Your task to perform on an android device: allow notifications from all sites in the chrome app Image 0: 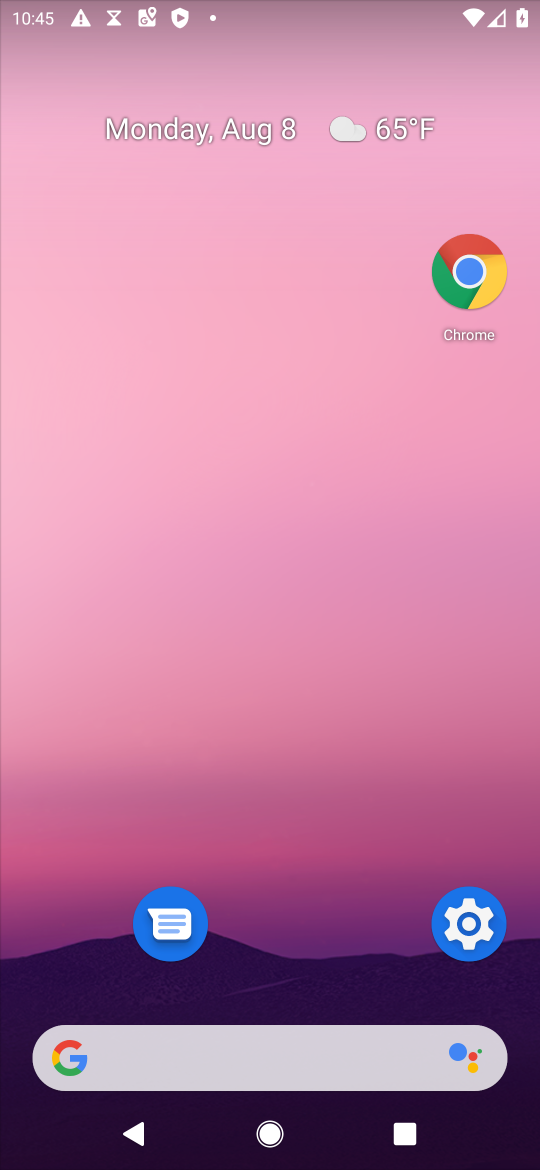
Step 0: press home button
Your task to perform on an android device: allow notifications from all sites in the chrome app Image 1: 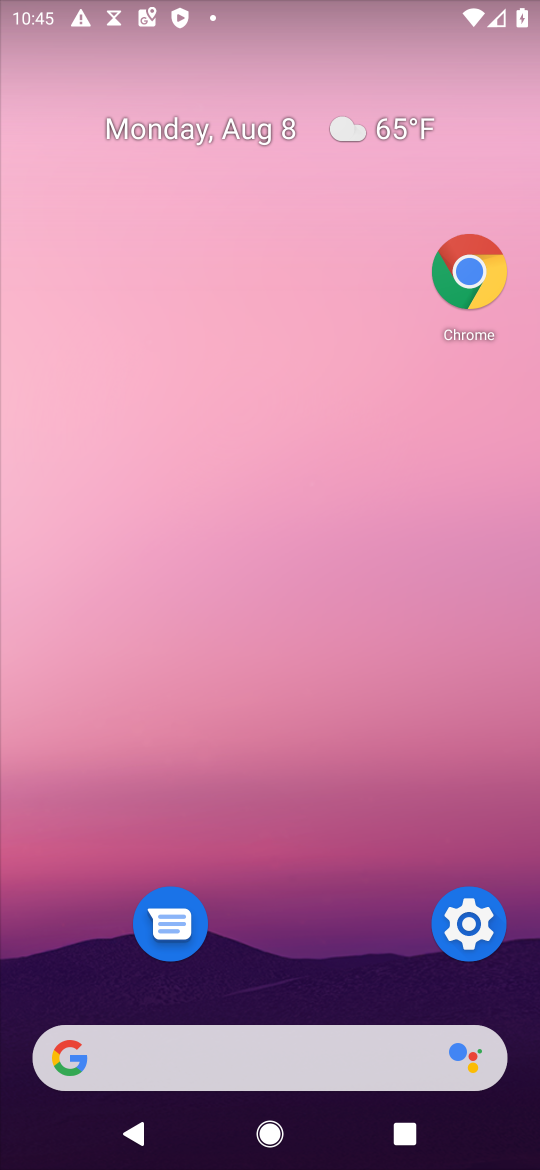
Step 1: drag from (236, 963) to (244, 760)
Your task to perform on an android device: allow notifications from all sites in the chrome app Image 2: 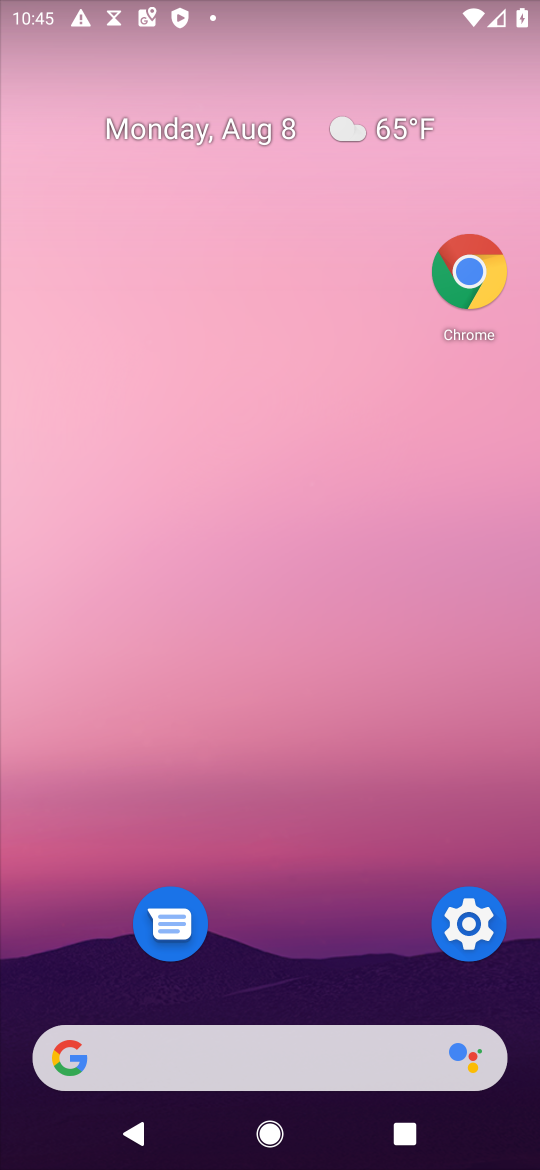
Step 2: click (478, 260)
Your task to perform on an android device: allow notifications from all sites in the chrome app Image 3: 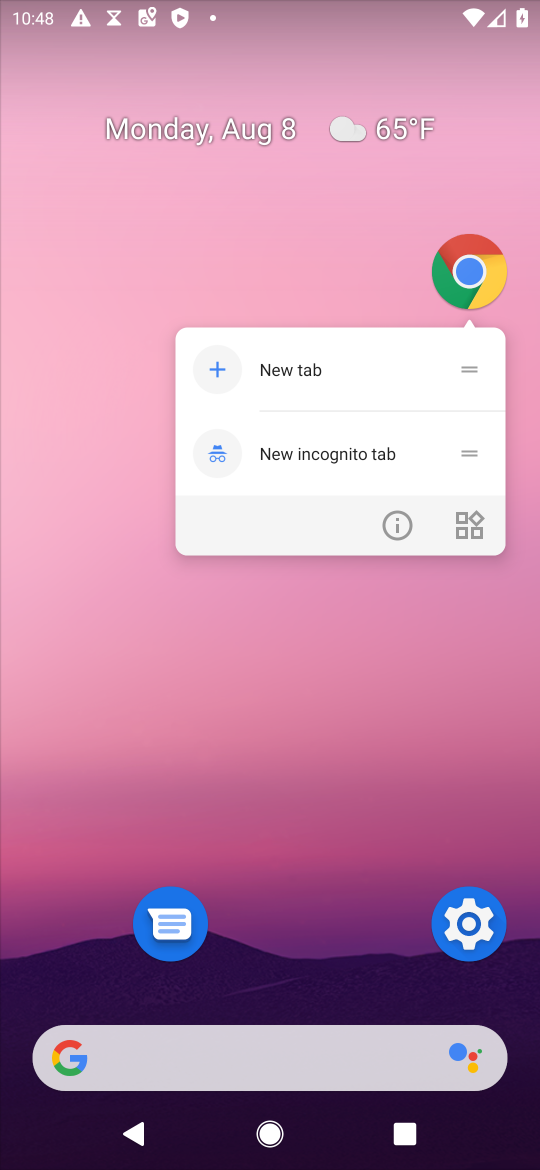
Step 3: click (304, 779)
Your task to perform on an android device: allow notifications from all sites in the chrome app Image 4: 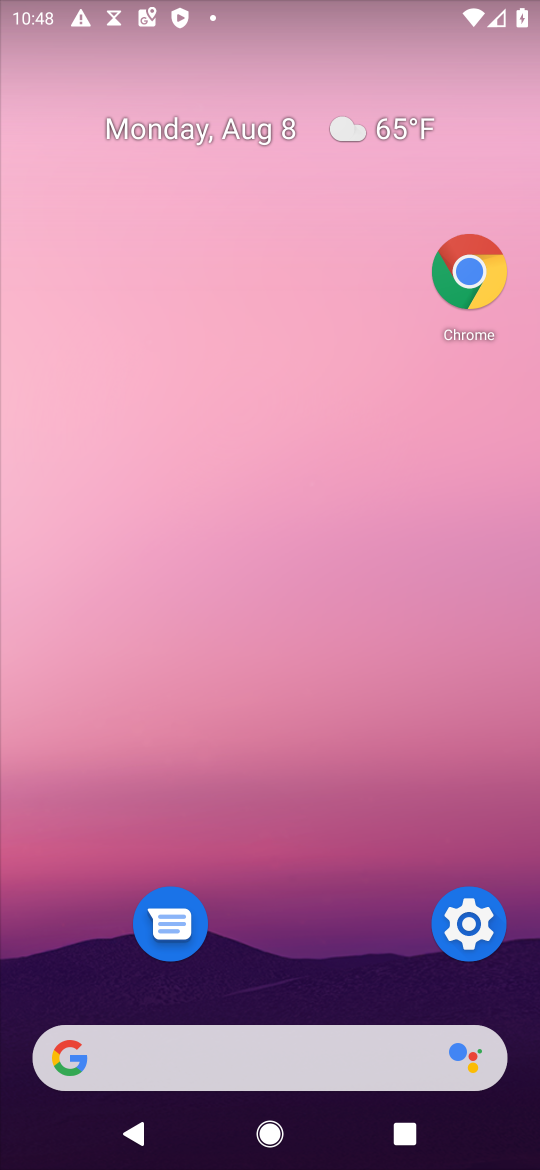
Step 4: click (482, 284)
Your task to perform on an android device: allow notifications from all sites in the chrome app Image 5: 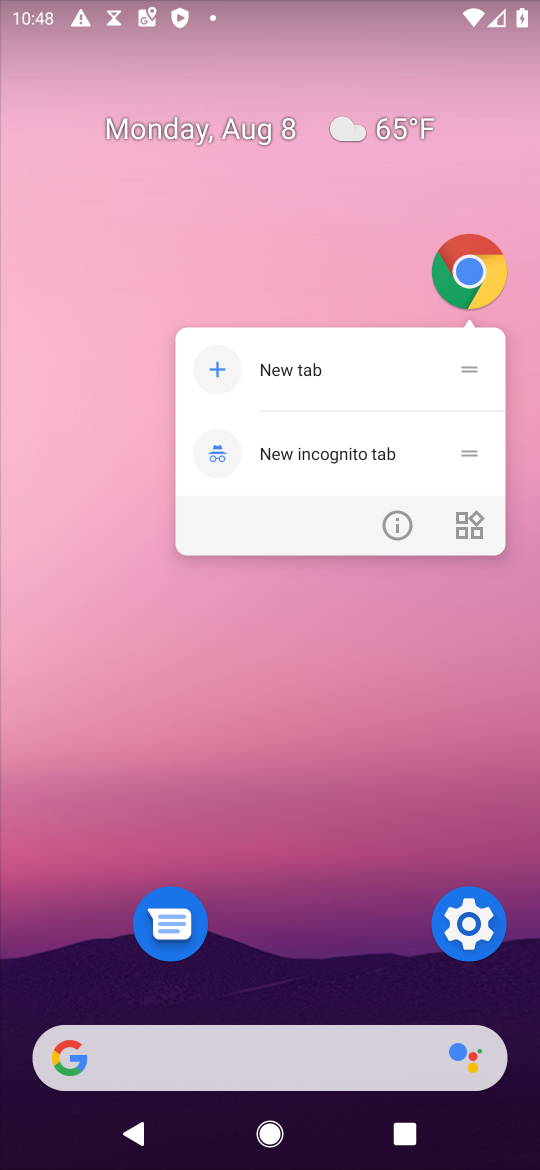
Step 5: click (383, 533)
Your task to perform on an android device: allow notifications from all sites in the chrome app Image 6: 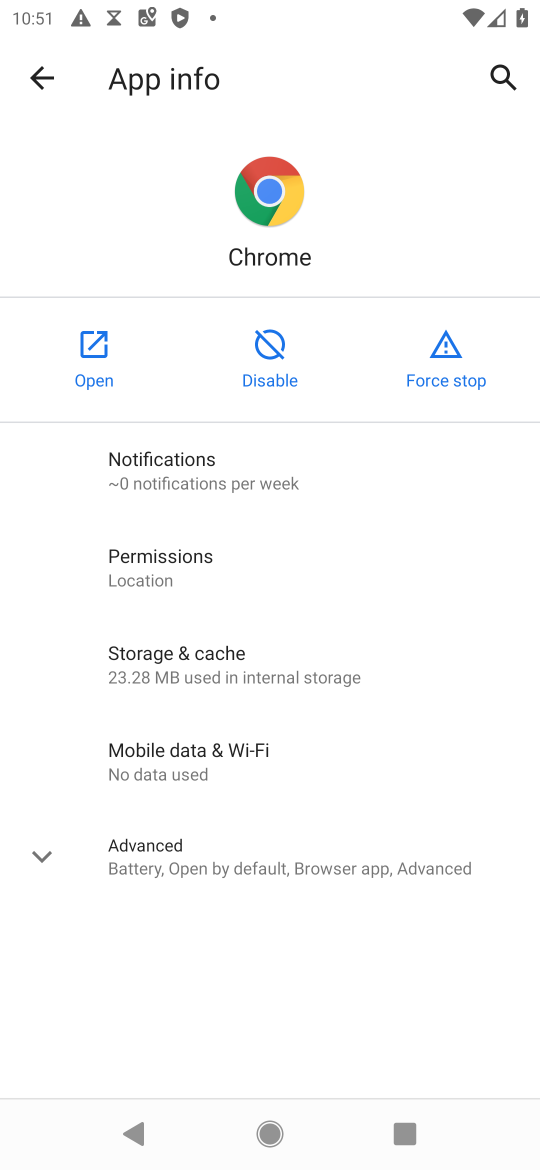
Step 6: click (156, 567)
Your task to perform on an android device: allow notifications from all sites in the chrome app Image 7: 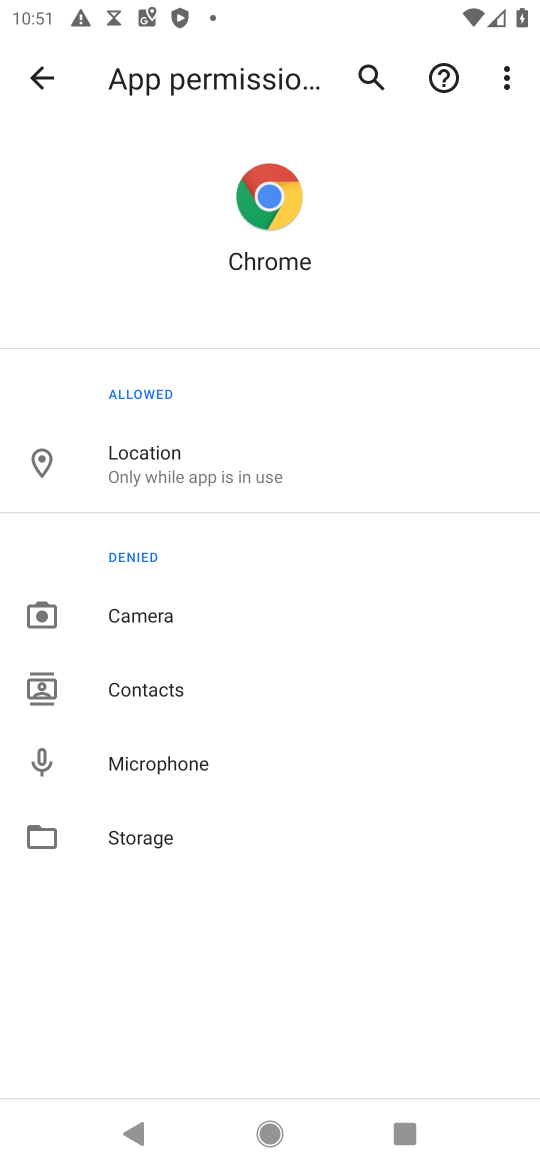
Step 7: click (160, 621)
Your task to perform on an android device: allow notifications from all sites in the chrome app Image 8: 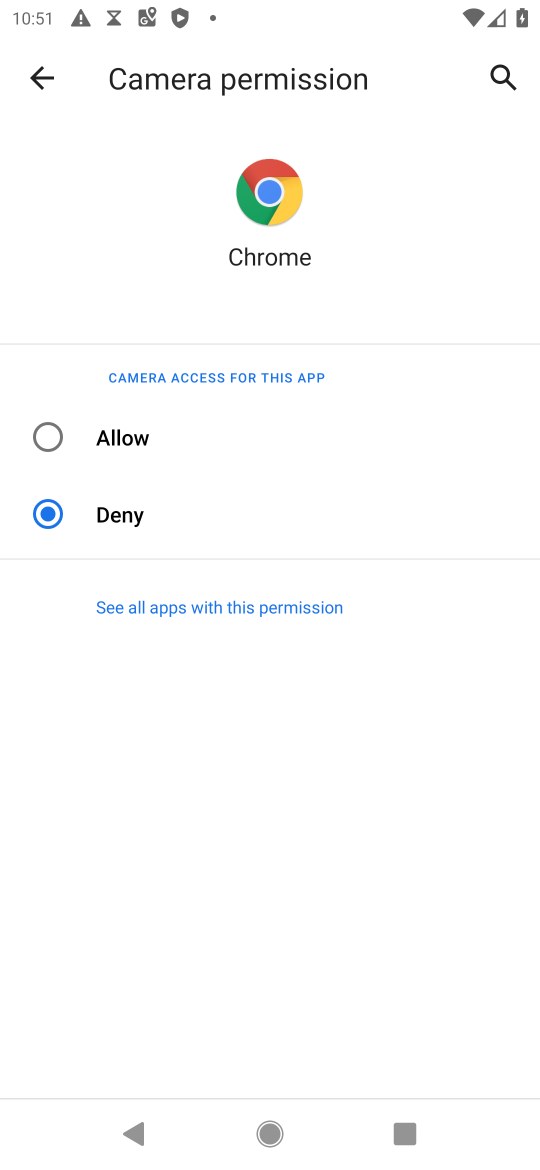
Step 8: click (170, 428)
Your task to perform on an android device: allow notifications from all sites in the chrome app Image 9: 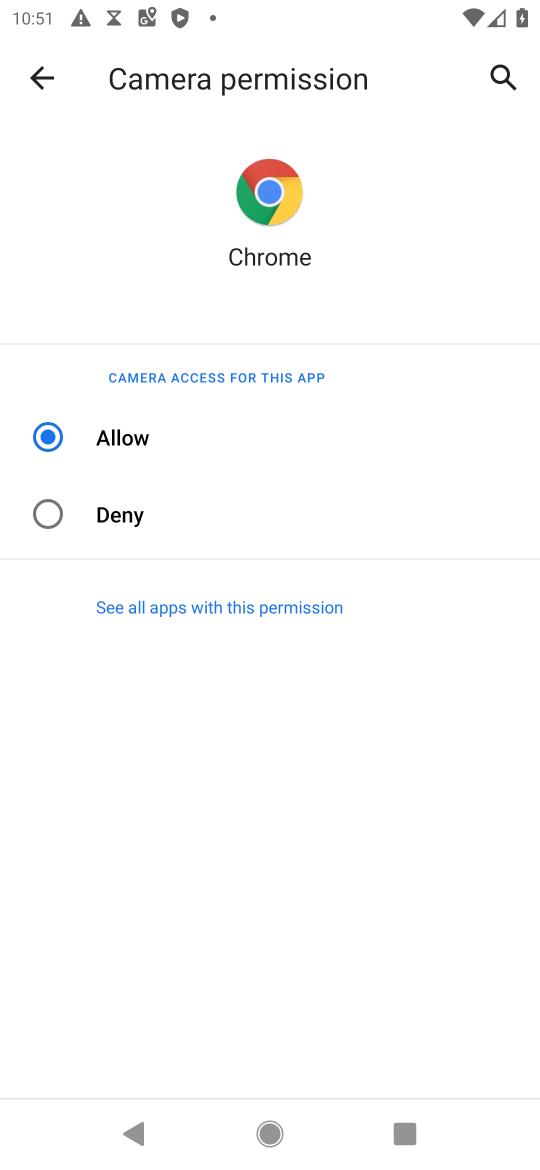
Step 9: task complete